Your task to perform on an android device: open chrome privacy settings Image 0: 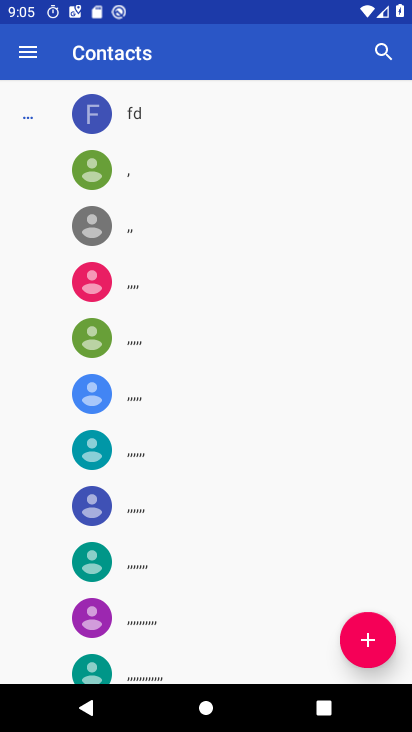
Step 0: press home button
Your task to perform on an android device: open chrome privacy settings Image 1: 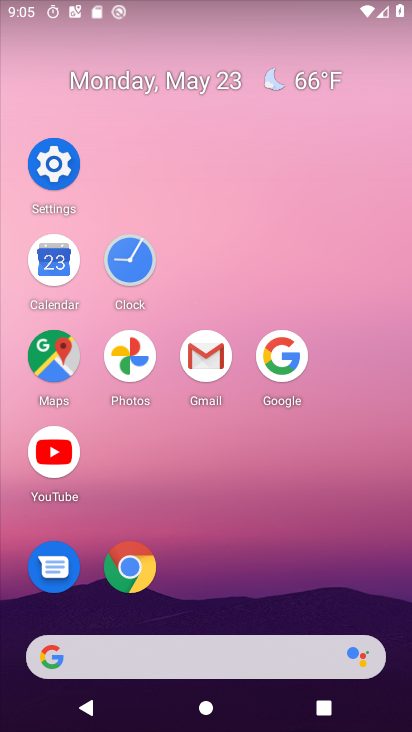
Step 1: click (128, 574)
Your task to perform on an android device: open chrome privacy settings Image 2: 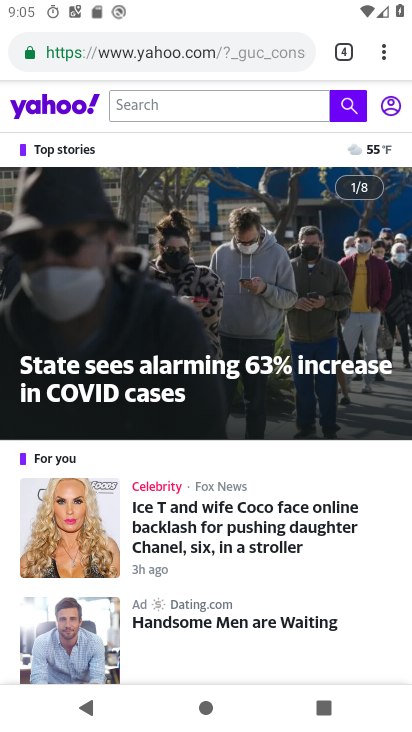
Step 2: click (388, 35)
Your task to perform on an android device: open chrome privacy settings Image 3: 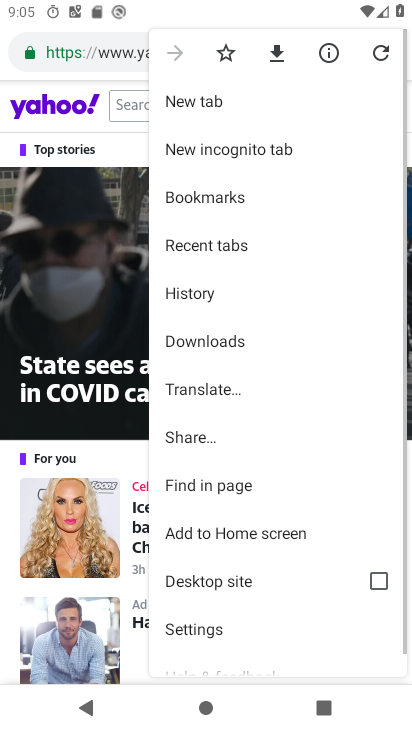
Step 3: drag from (249, 468) to (239, 71)
Your task to perform on an android device: open chrome privacy settings Image 4: 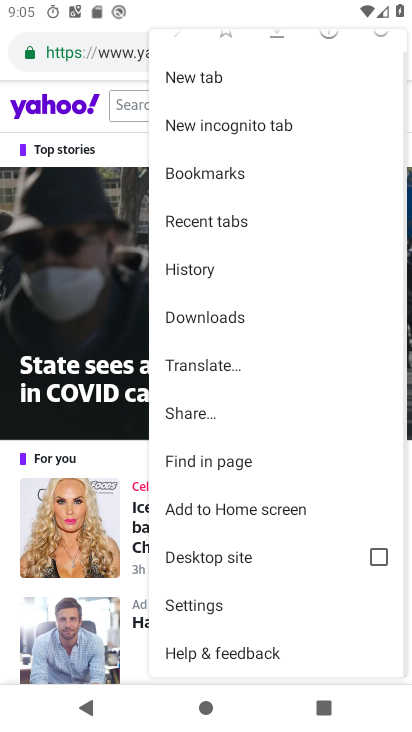
Step 4: click (224, 599)
Your task to perform on an android device: open chrome privacy settings Image 5: 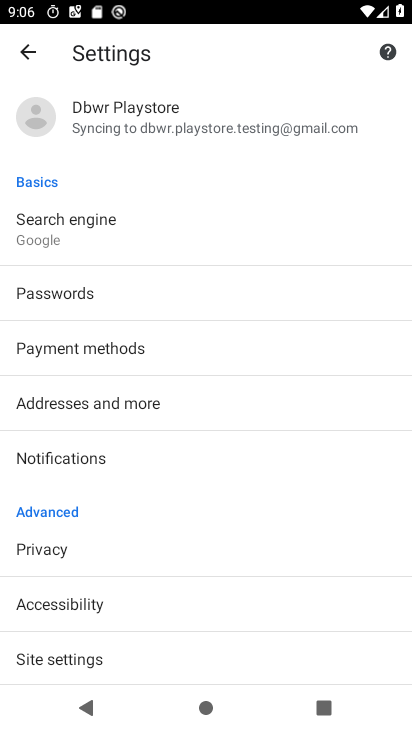
Step 5: click (68, 556)
Your task to perform on an android device: open chrome privacy settings Image 6: 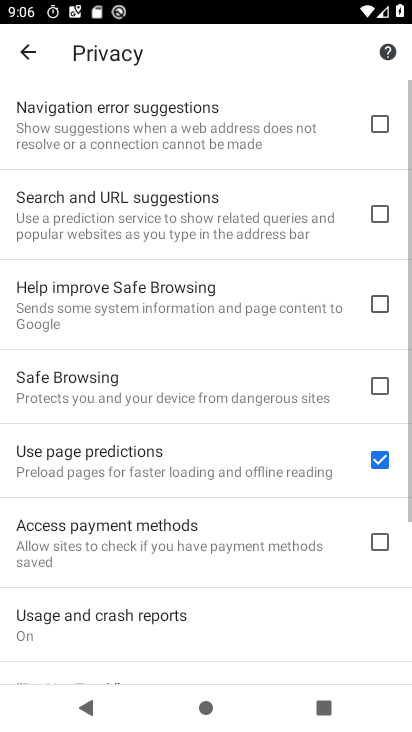
Step 6: task complete